Your task to perform on an android device: toggle improve location accuracy Image 0: 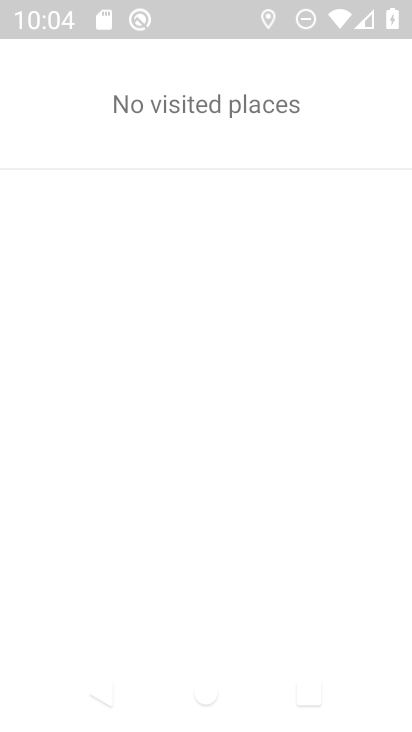
Step 0: press back button
Your task to perform on an android device: toggle improve location accuracy Image 1: 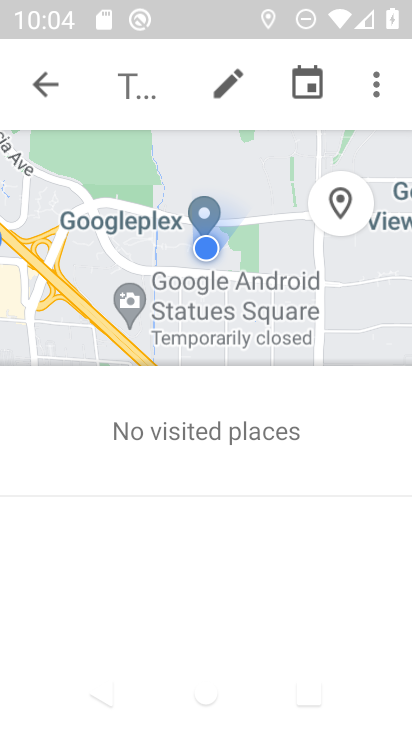
Step 1: press home button
Your task to perform on an android device: toggle improve location accuracy Image 2: 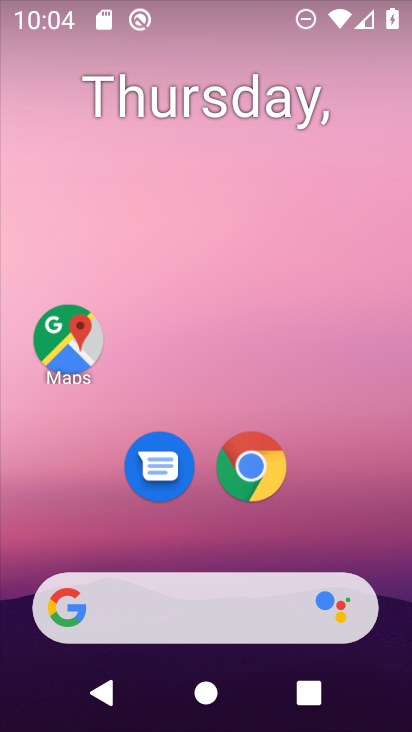
Step 2: drag from (308, 567) to (338, 82)
Your task to perform on an android device: toggle improve location accuracy Image 3: 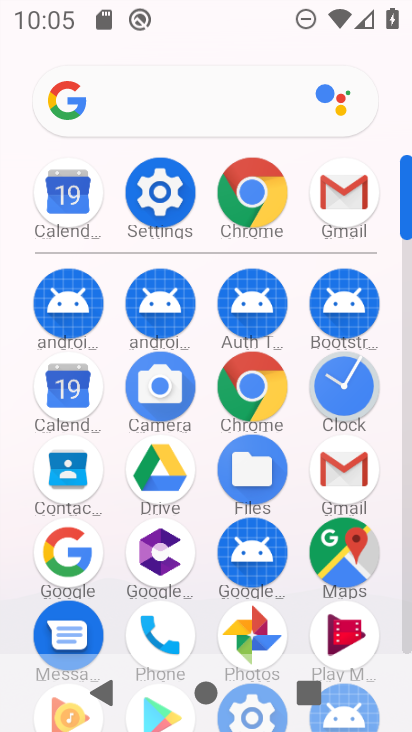
Step 3: click (147, 202)
Your task to perform on an android device: toggle improve location accuracy Image 4: 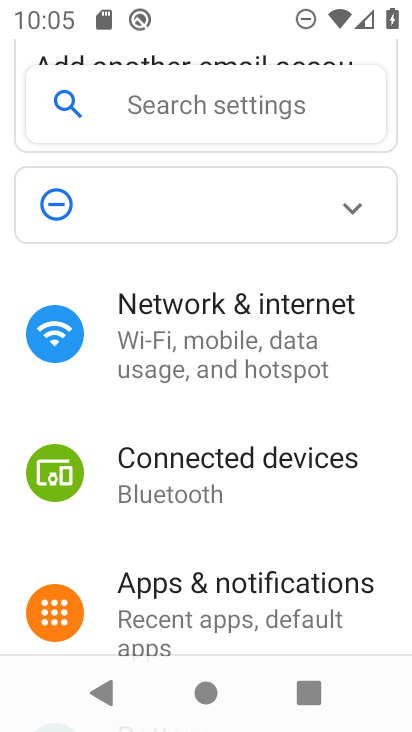
Step 4: drag from (241, 506) to (201, 137)
Your task to perform on an android device: toggle improve location accuracy Image 5: 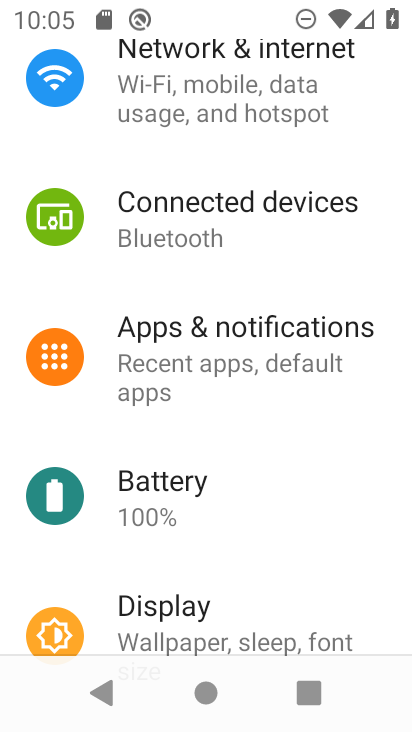
Step 5: drag from (272, 513) to (272, 96)
Your task to perform on an android device: toggle improve location accuracy Image 6: 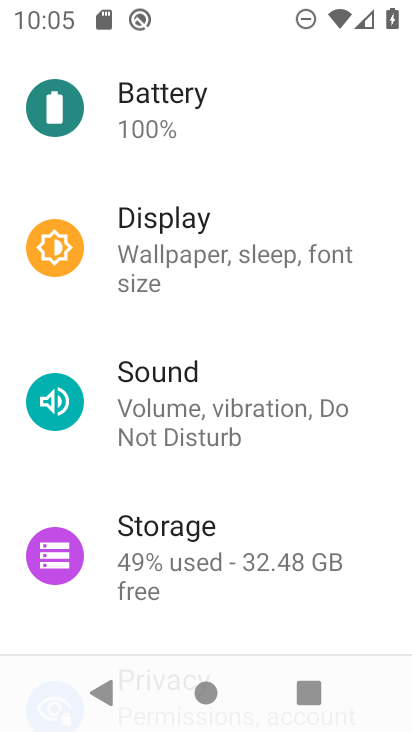
Step 6: drag from (261, 522) to (240, 179)
Your task to perform on an android device: toggle improve location accuracy Image 7: 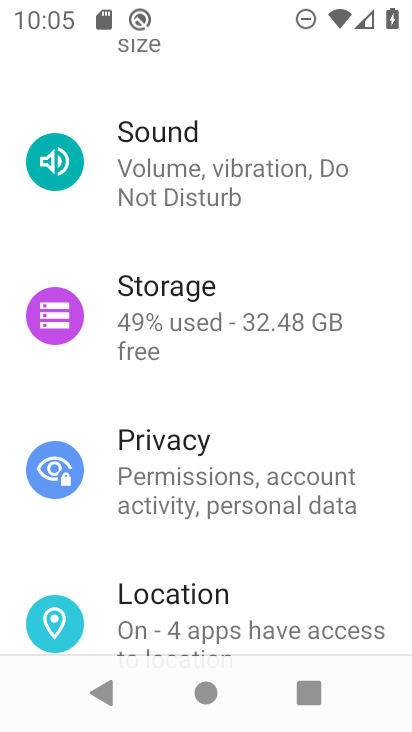
Step 7: click (195, 602)
Your task to perform on an android device: toggle improve location accuracy Image 8: 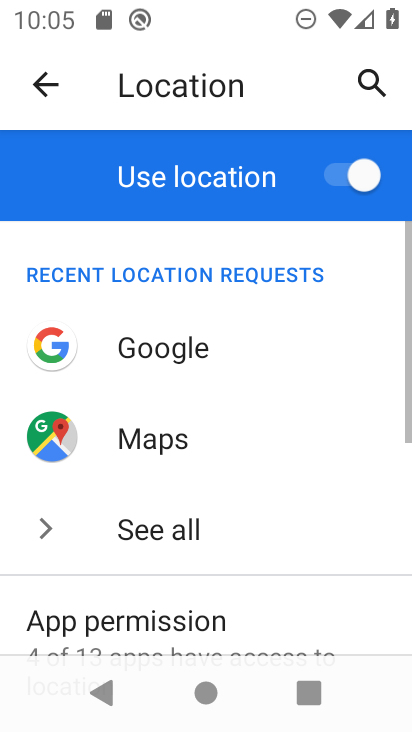
Step 8: drag from (209, 587) to (208, 222)
Your task to perform on an android device: toggle improve location accuracy Image 9: 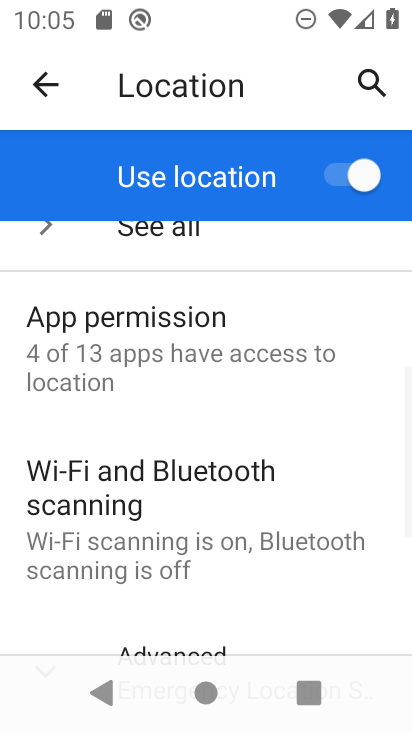
Step 9: drag from (194, 559) to (182, 248)
Your task to perform on an android device: toggle improve location accuracy Image 10: 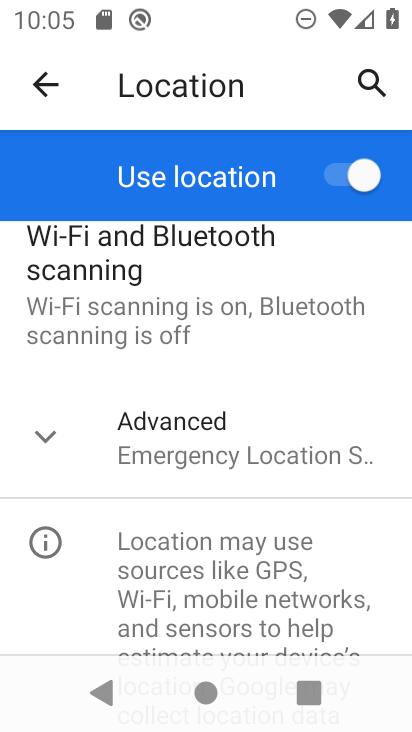
Step 10: click (213, 456)
Your task to perform on an android device: toggle improve location accuracy Image 11: 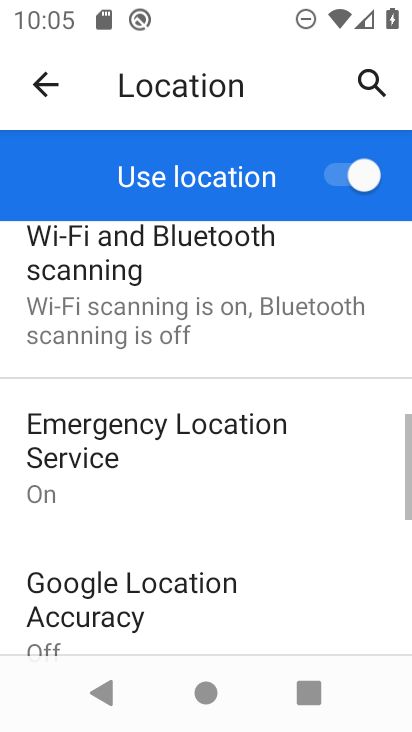
Step 11: drag from (224, 557) to (230, 369)
Your task to perform on an android device: toggle improve location accuracy Image 12: 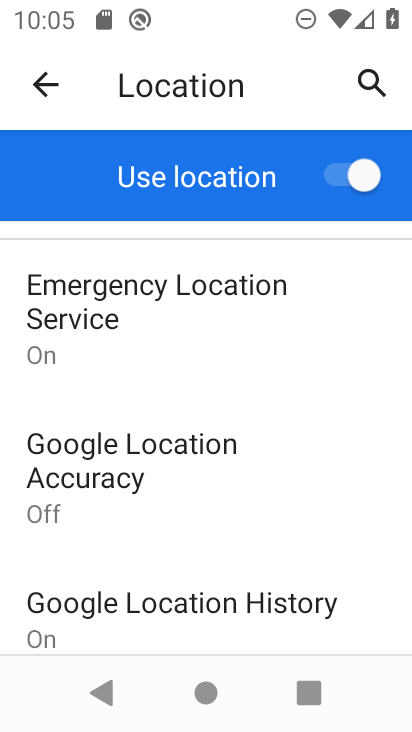
Step 12: click (186, 465)
Your task to perform on an android device: toggle improve location accuracy Image 13: 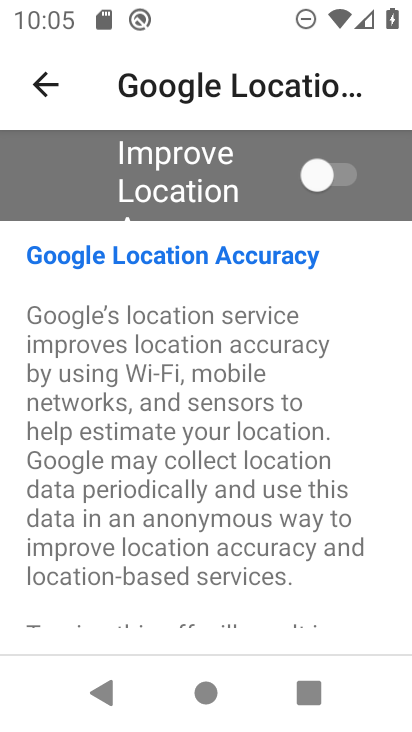
Step 13: click (337, 172)
Your task to perform on an android device: toggle improve location accuracy Image 14: 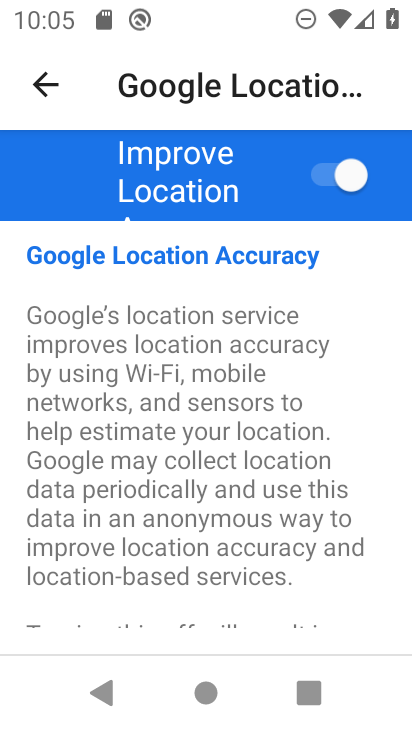
Step 14: task complete